Your task to perform on an android device: Check the weather Image 0: 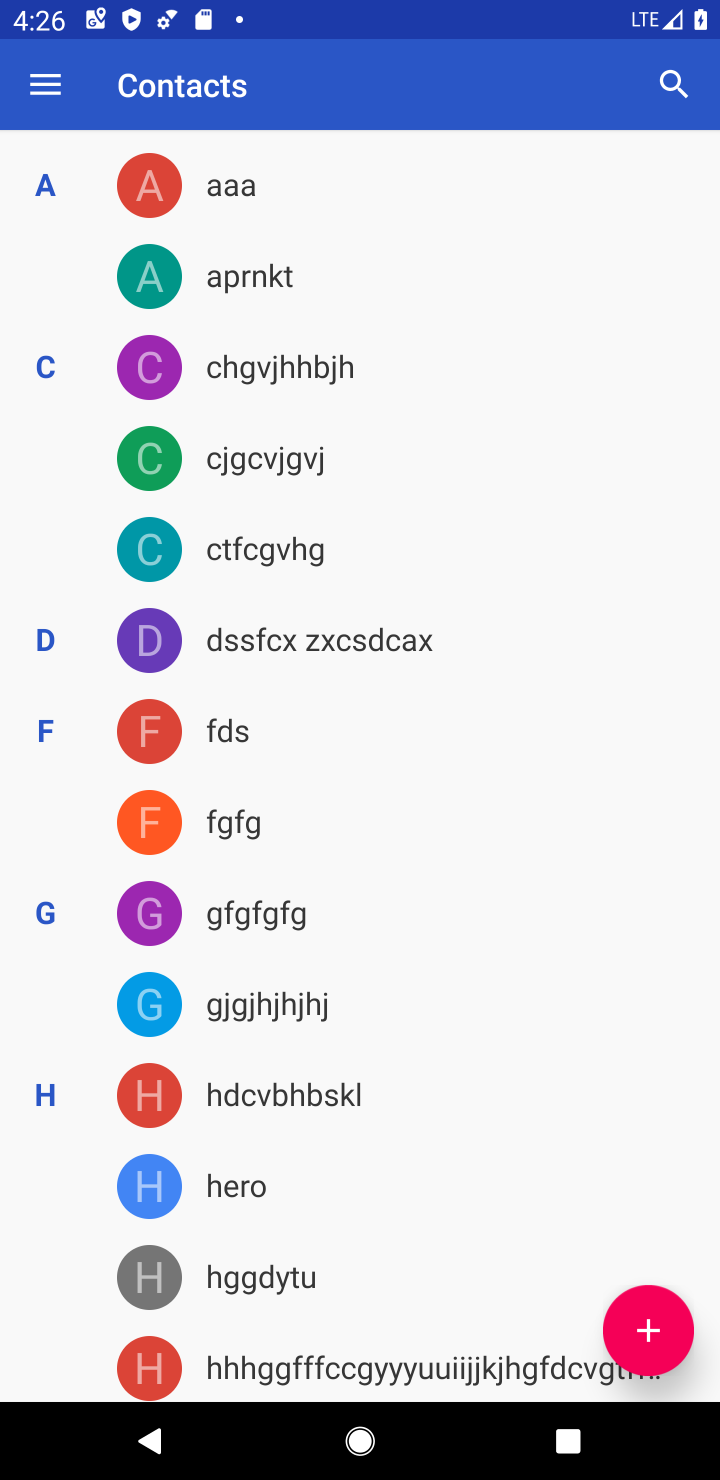
Step 0: press home button
Your task to perform on an android device: Check the weather Image 1: 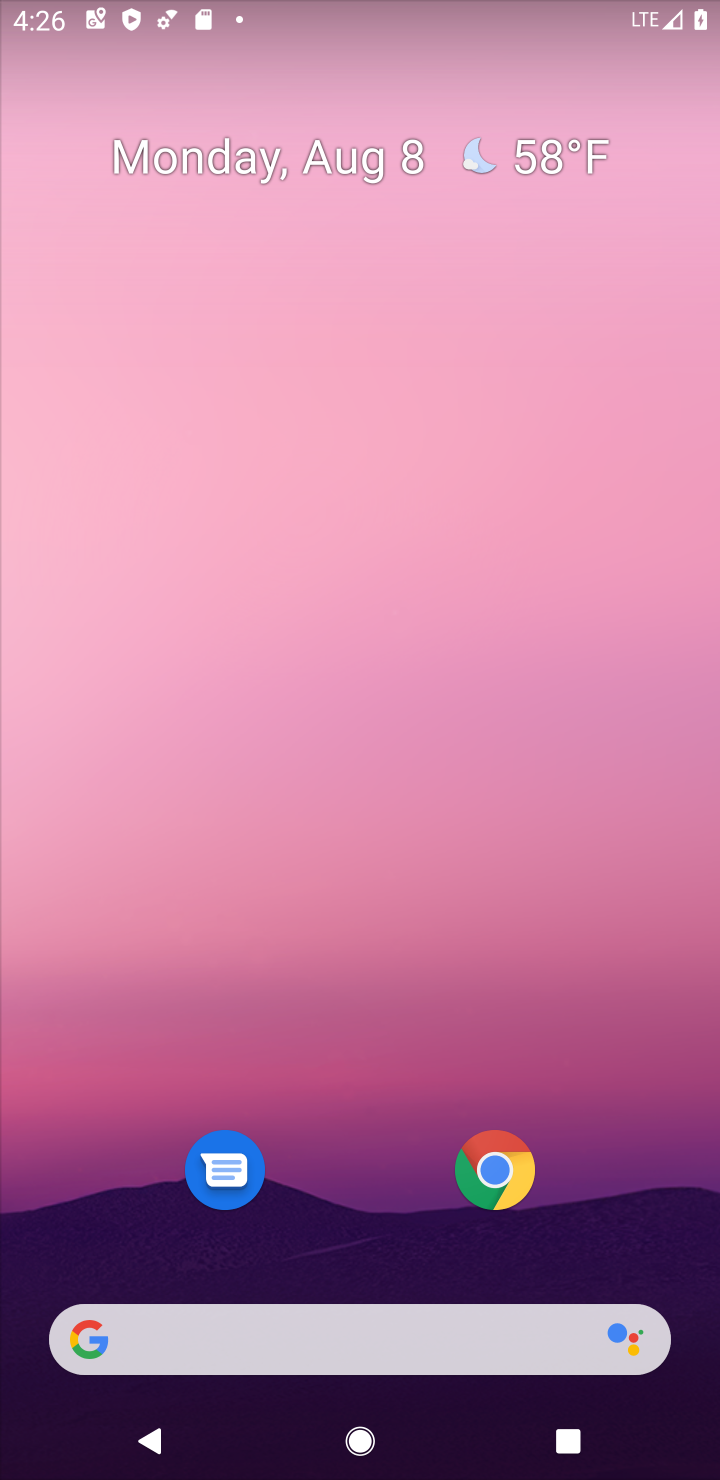
Step 1: drag from (352, 1174) to (331, 225)
Your task to perform on an android device: Check the weather Image 2: 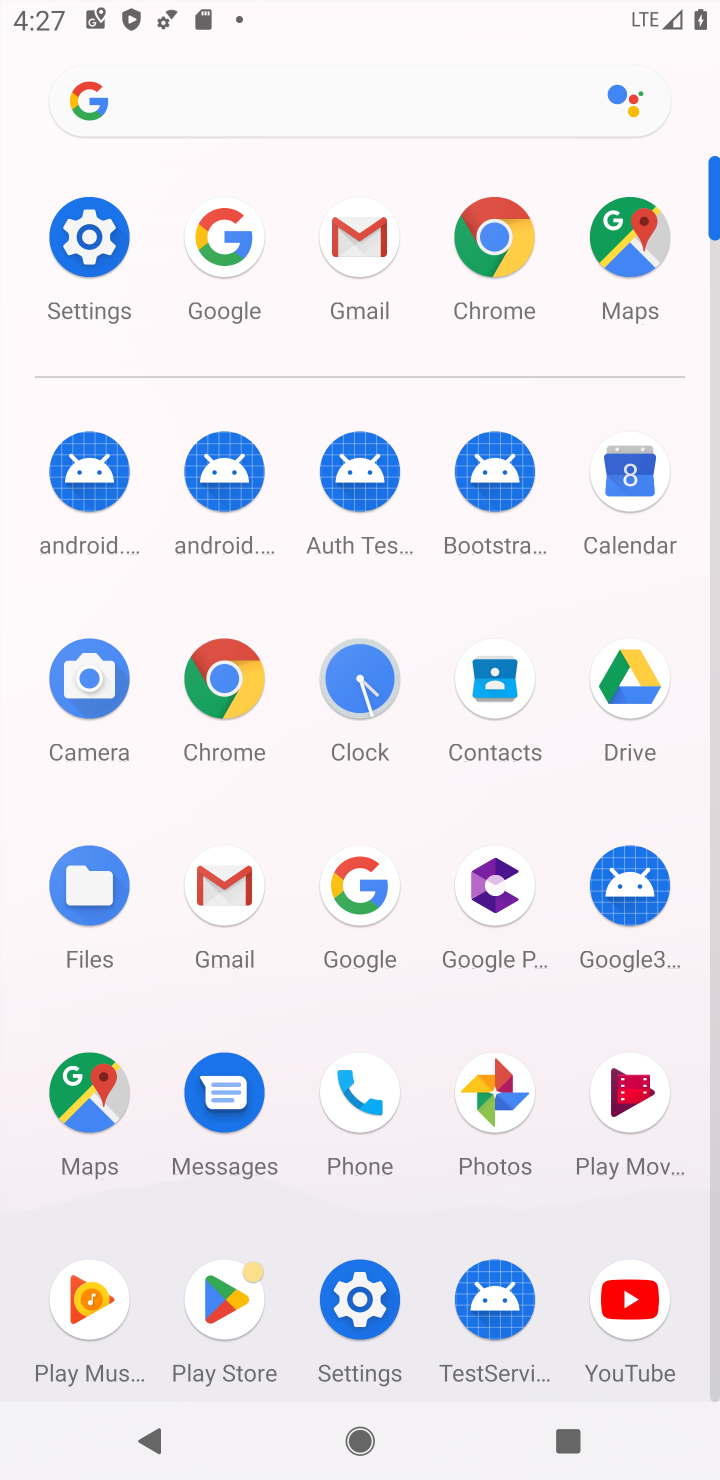
Step 2: click (238, 256)
Your task to perform on an android device: Check the weather Image 3: 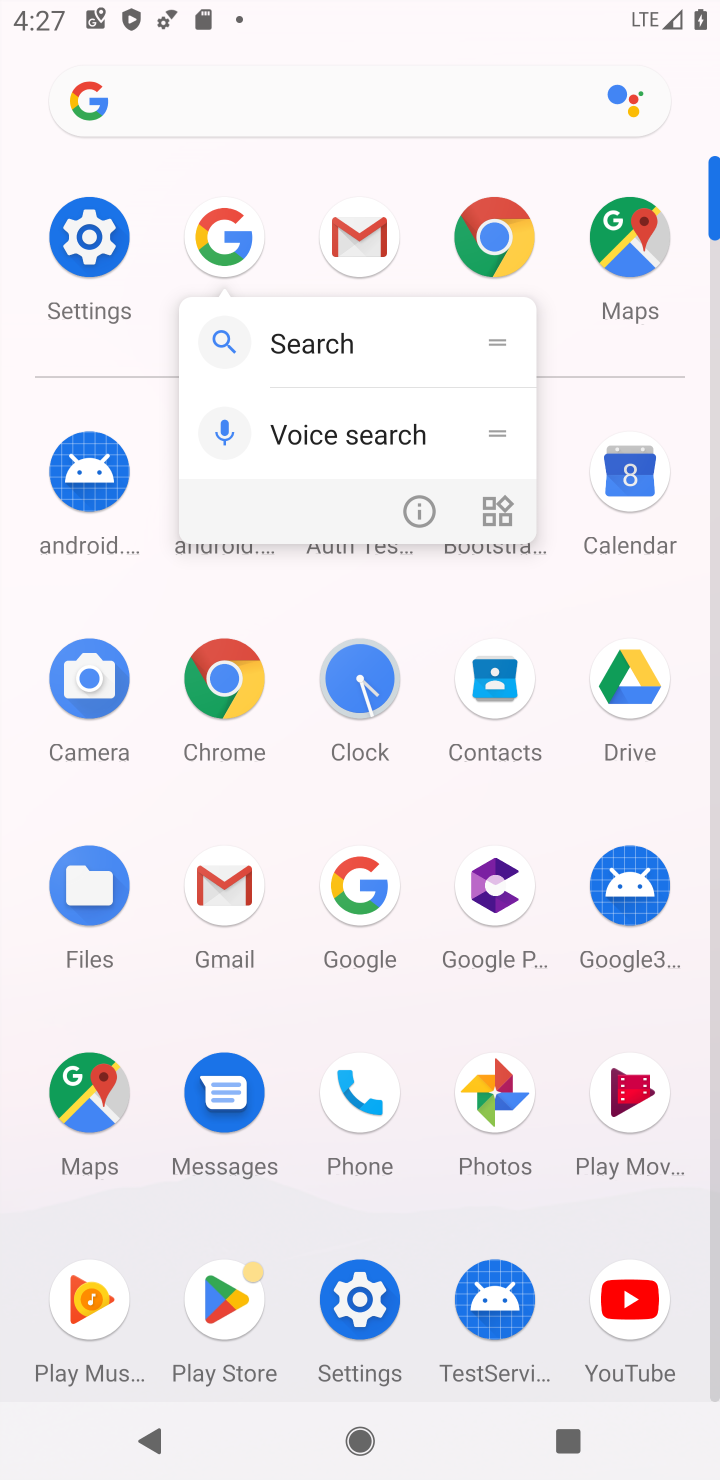
Step 3: click (252, 244)
Your task to perform on an android device: Check the weather Image 4: 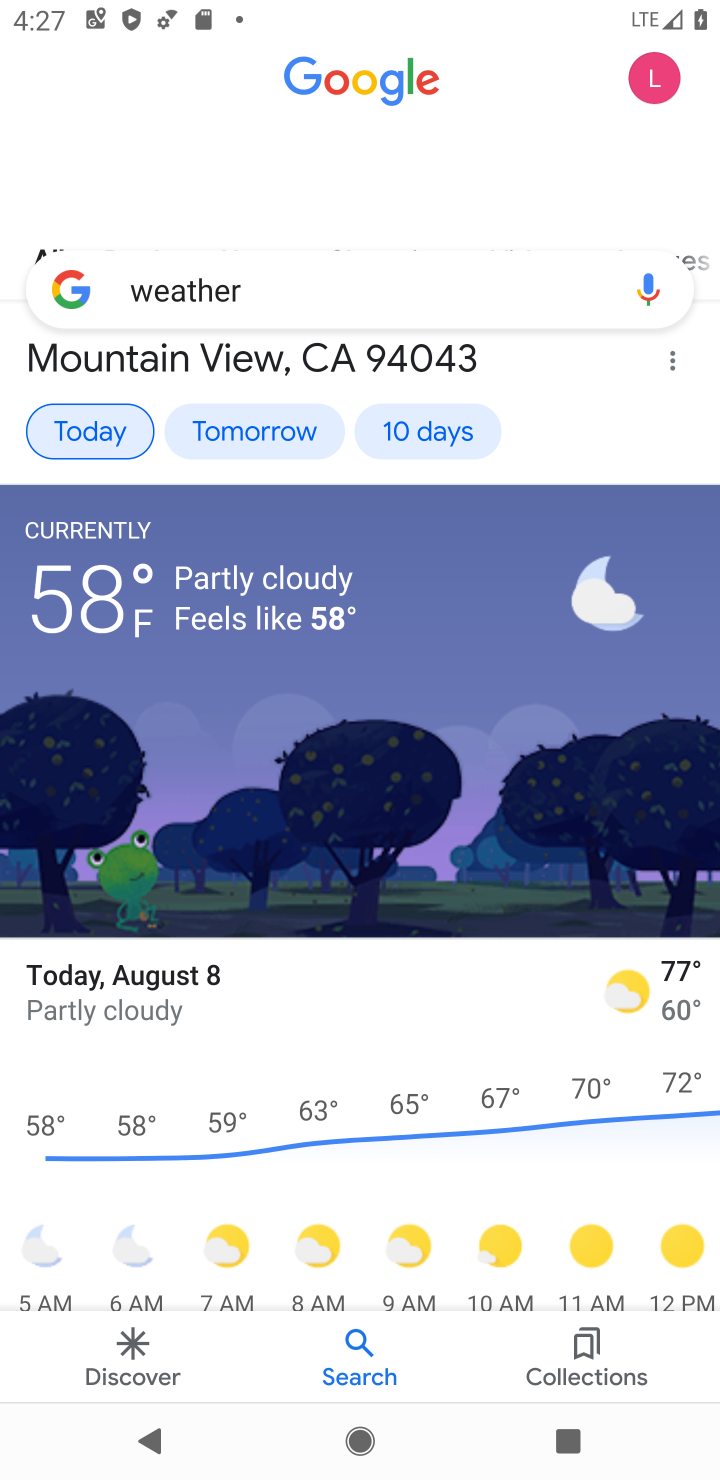
Step 4: task complete